Your task to perform on an android device: What is the recent news? Image 0: 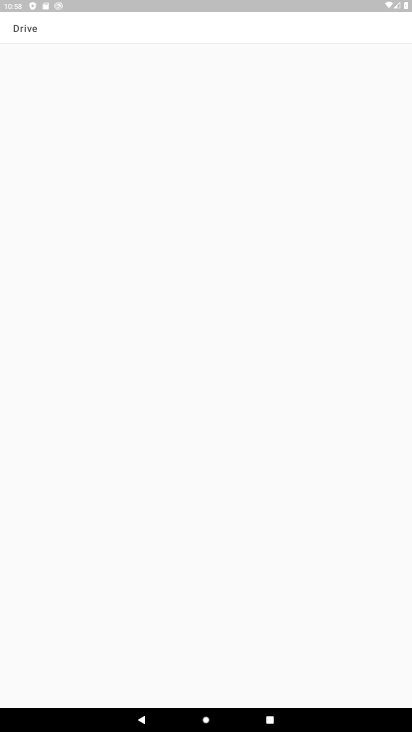
Step 0: press home button
Your task to perform on an android device: What is the recent news? Image 1: 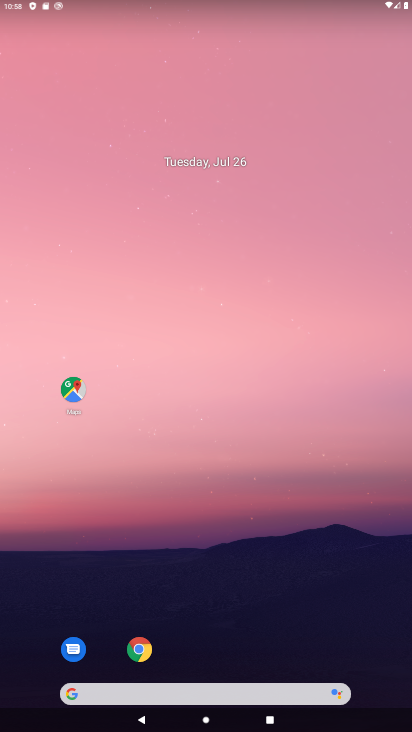
Step 1: click (200, 690)
Your task to perform on an android device: What is the recent news? Image 2: 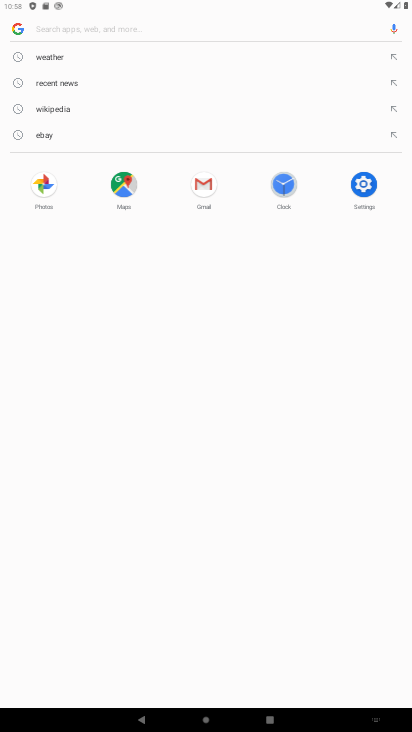
Step 2: click (78, 91)
Your task to perform on an android device: What is the recent news? Image 3: 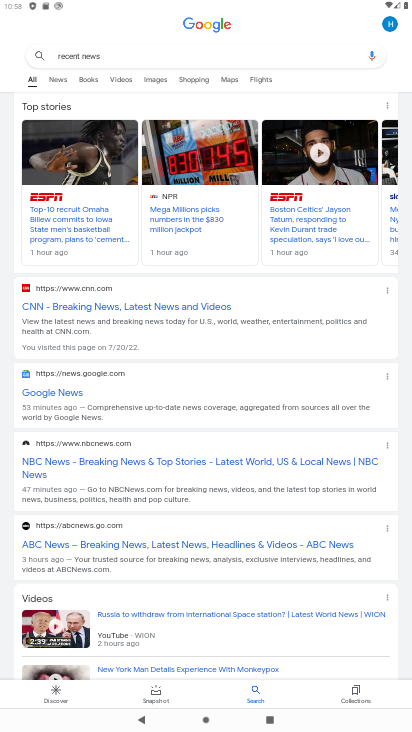
Step 3: task complete